Your task to perform on an android device: open sync settings in chrome Image 0: 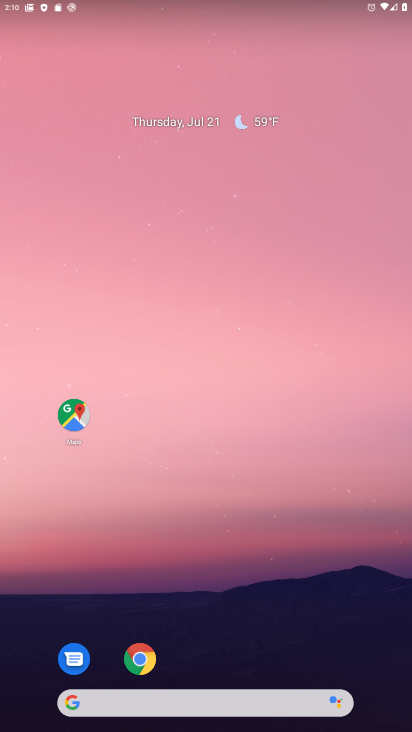
Step 0: drag from (293, 628) to (330, 11)
Your task to perform on an android device: open sync settings in chrome Image 1: 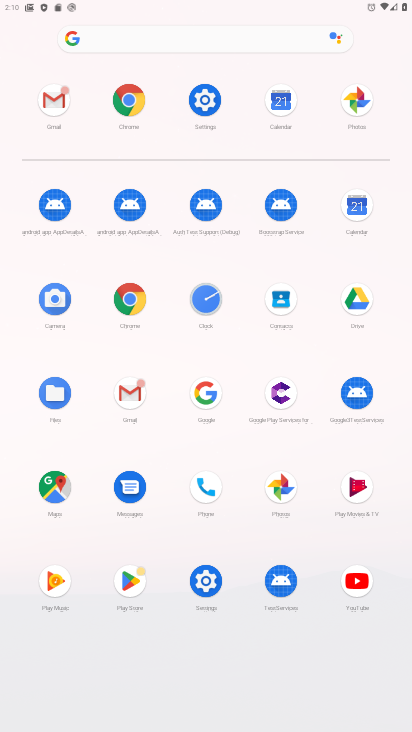
Step 1: click (126, 100)
Your task to perform on an android device: open sync settings in chrome Image 2: 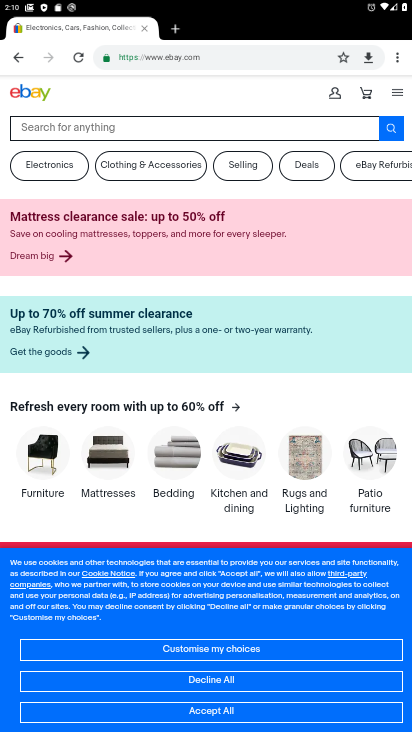
Step 2: drag from (399, 57) to (275, 386)
Your task to perform on an android device: open sync settings in chrome Image 3: 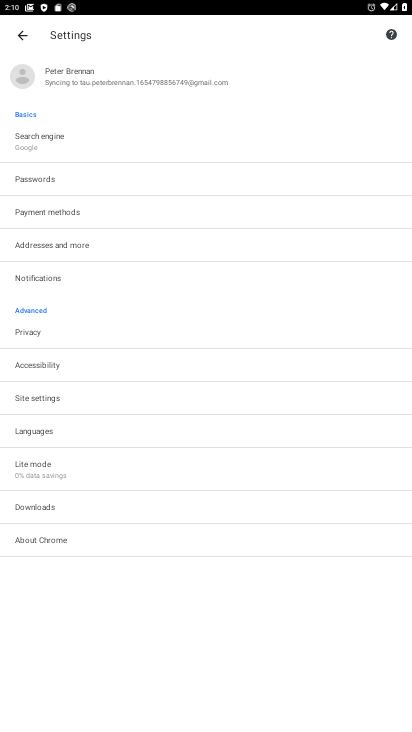
Step 3: click (81, 85)
Your task to perform on an android device: open sync settings in chrome Image 4: 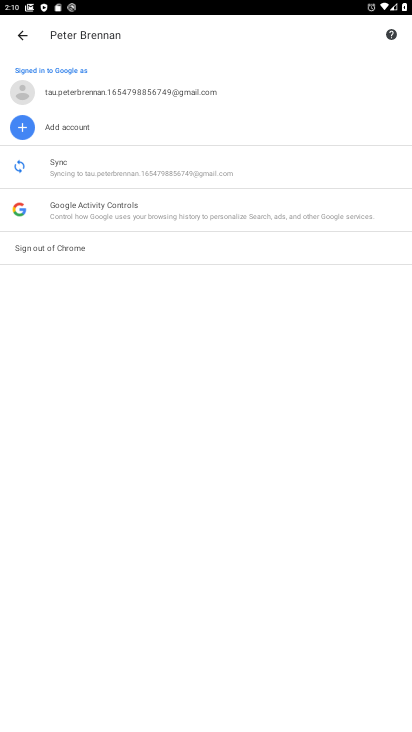
Step 4: click (78, 167)
Your task to perform on an android device: open sync settings in chrome Image 5: 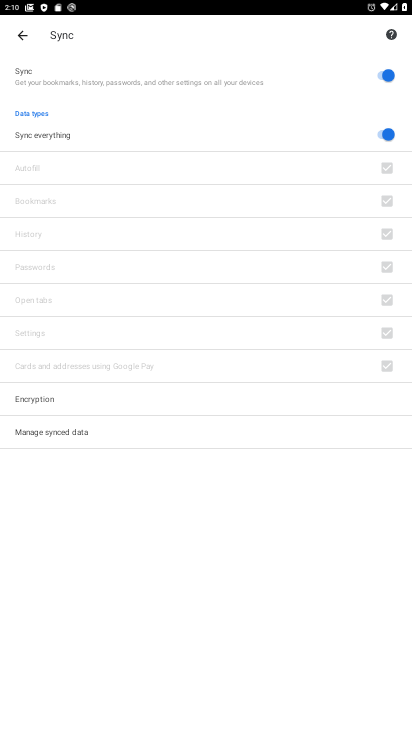
Step 5: task complete